Your task to perform on an android device: Open my contact list Image 0: 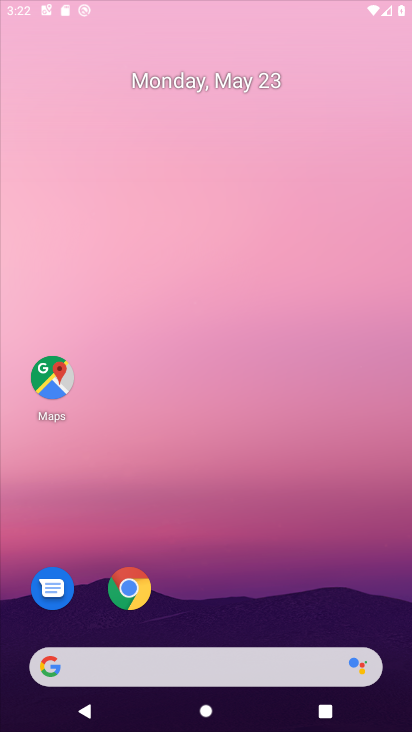
Step 0: click (378, 67)
Your task to perform on an android device: Open my contact list Image 1: 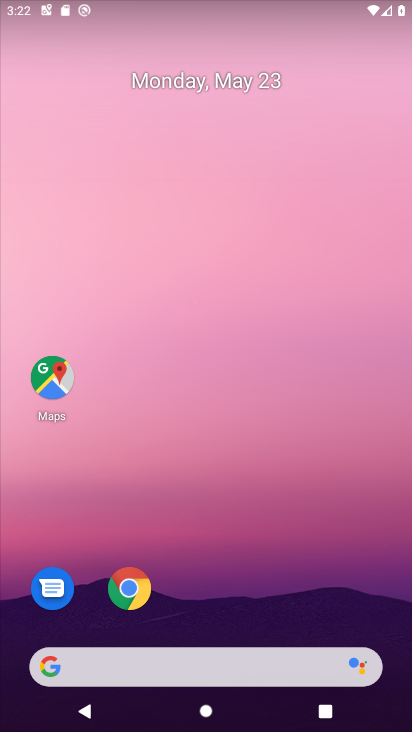
Step 1: drag from (207, 562) to (211, 138)
Your task to perform on an android device: Open my contact list Image 2: 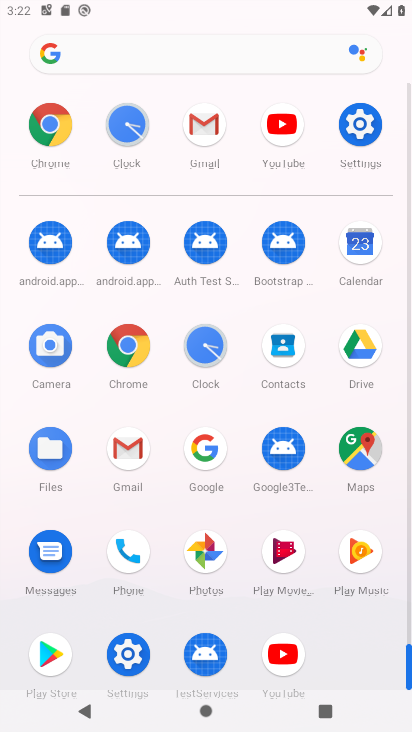
Step 2: click (366, 240)
Your task to perform on an android device: Open my contact list Image 3: 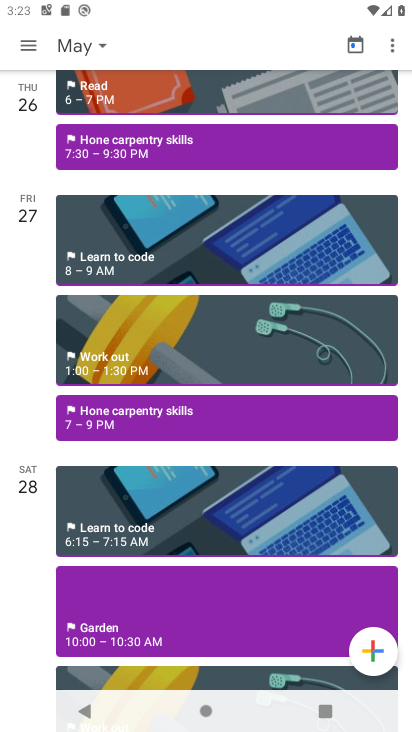
Step 3: drag from (243, 577) to (245, 206)
Your task to perform on an android device: Open my contact list Image 4: 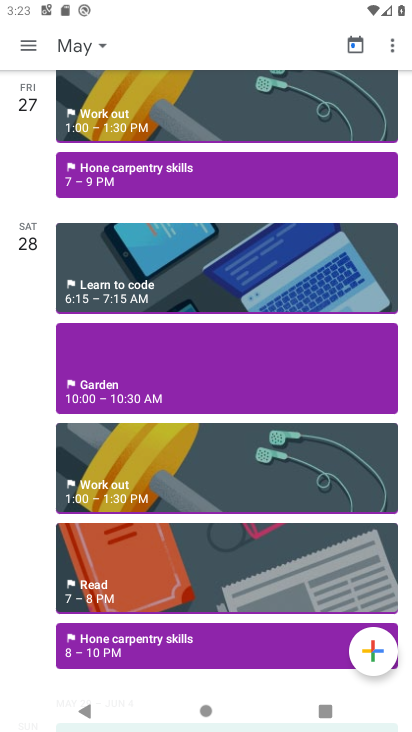
Step 4: press home button
Your task to perform on an android device: Open my contact list Image 5: 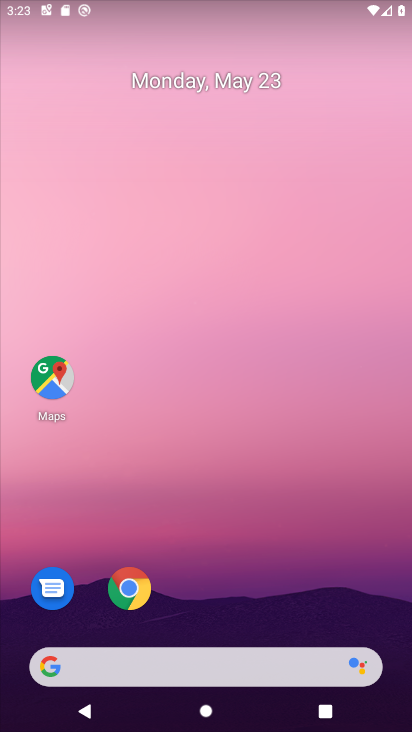
Step 5: drag from (204, 624) to (270, 142)
Your task to perform on an android device: Open my contact list Image 6: 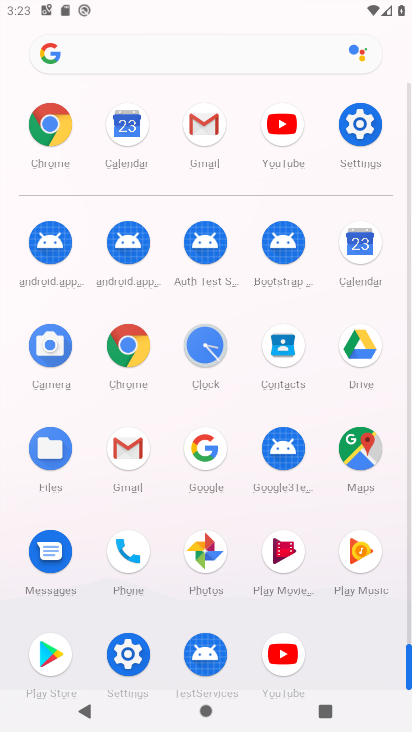
Step 6: click (280, 352)
Your task to perform on an android device: Open my contact list Image 7: 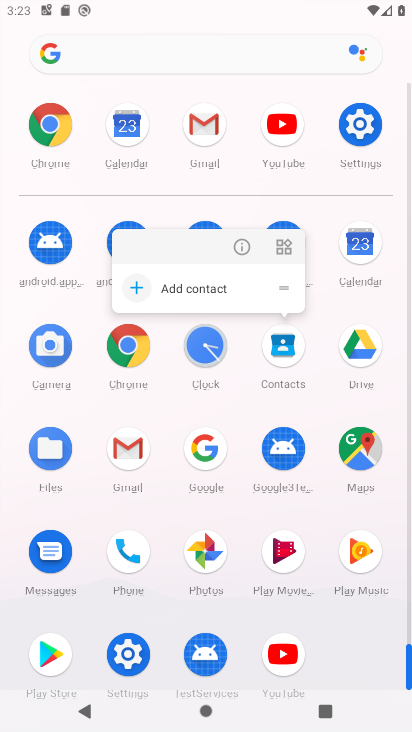
Step 7: click (237, 249)
Your task to perform on an android device: Open my contact list Image 8: 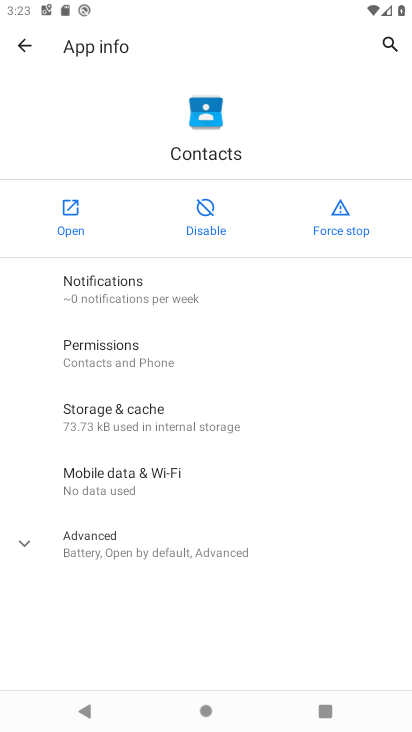
Step 8: click (59, 209)
Your task to perform on an android device: Open my contact list Image 9: 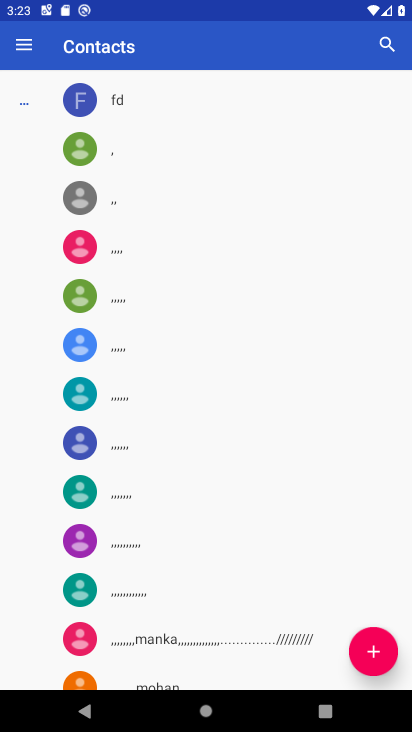
Step 9: task complete